Your task to perform on an android device: Go to location settings Image 0: 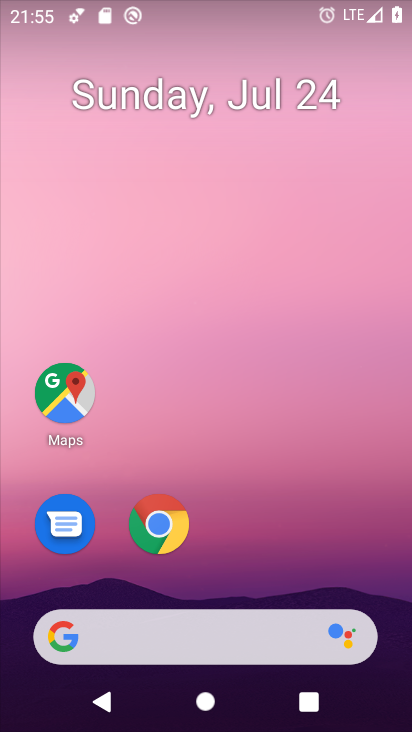
Step 0: drag from (234, 567) to (253, 1)
Your task to perform on an android device: Go to location settings Image 1: 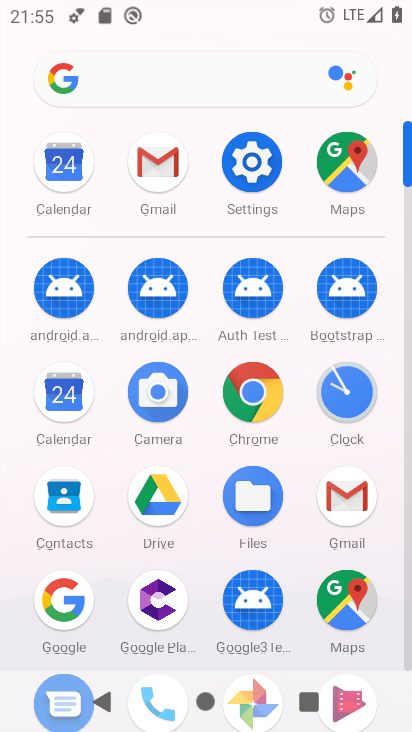
Step 1: click (251, 146)
Your task to perform on an android device: Go to location settings Image 2: 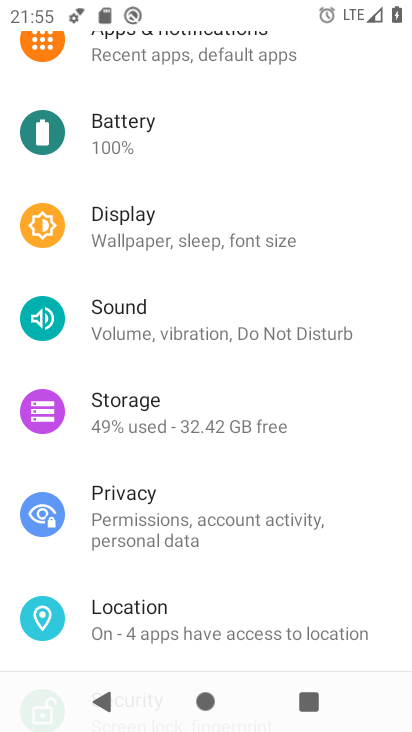
Step 2: drag from (224, 455) to (258, 90)
Your task to perform on an android device: Go to location settings Image 3: 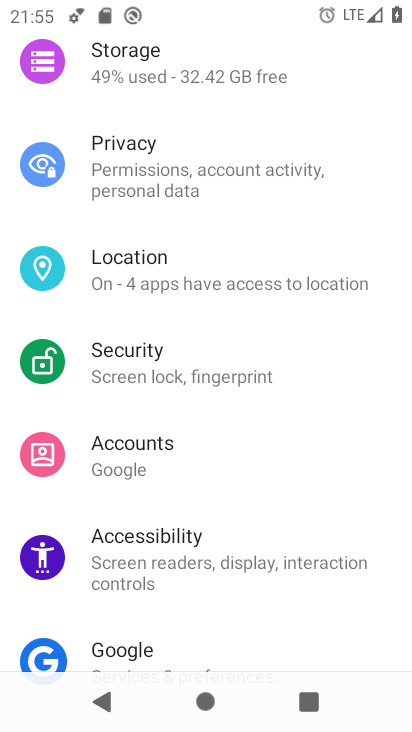
Step 3: click (209, 265)
Your task to perform on an android device: Go to location settings Image 4: 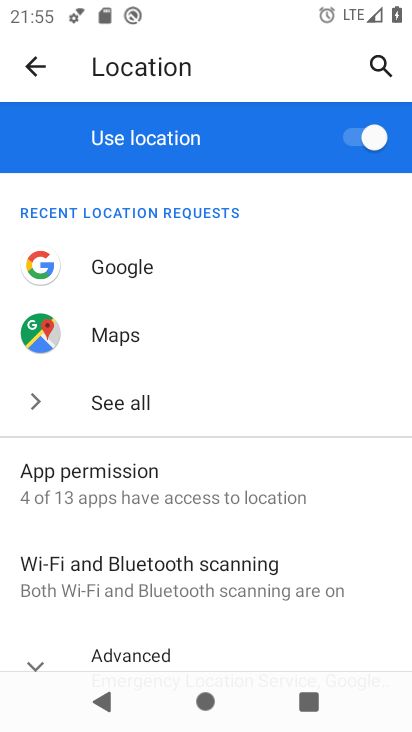
Step 4: task complete